Your task to perform on an android device: toggle translation in the chrome app Image 0: 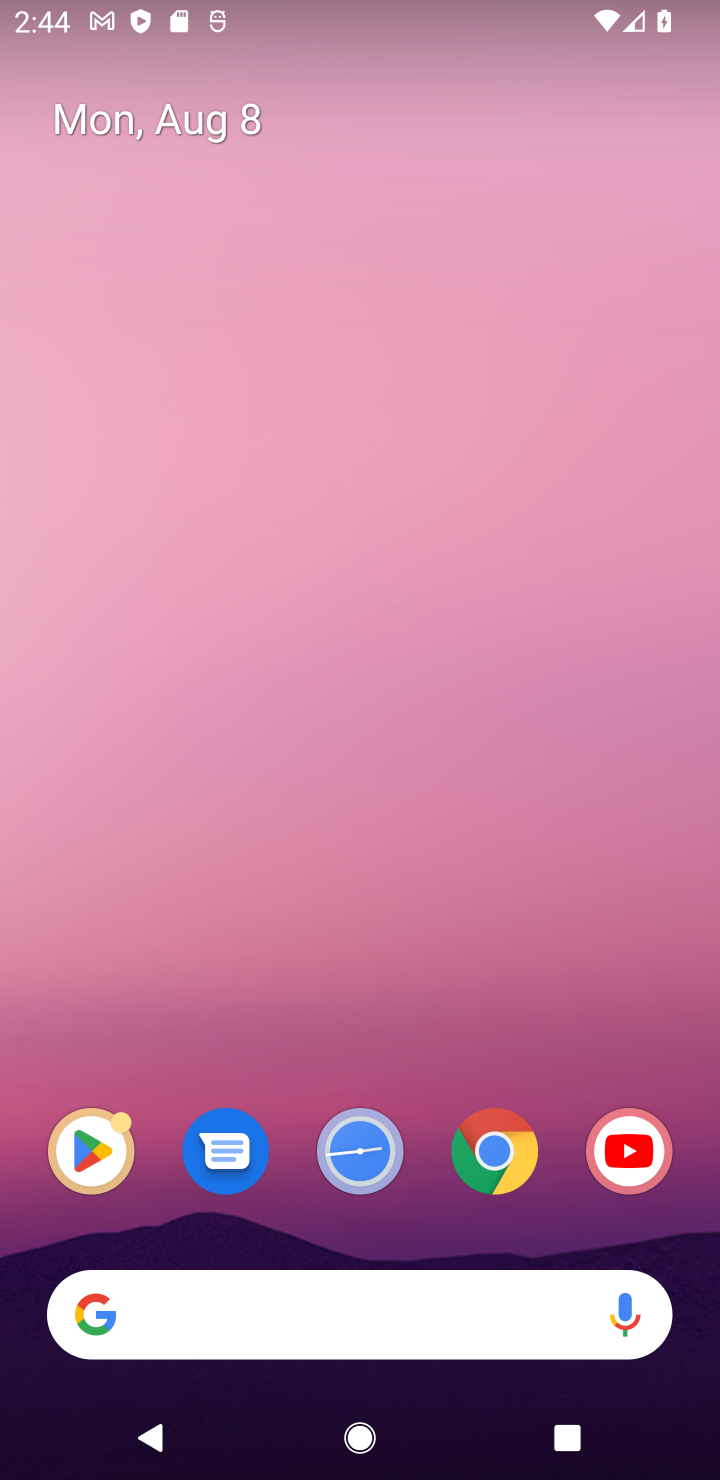
Step 0: click (496, 1128)
Your task to perform on an android device: toggle translation in the chrome app Image 1: 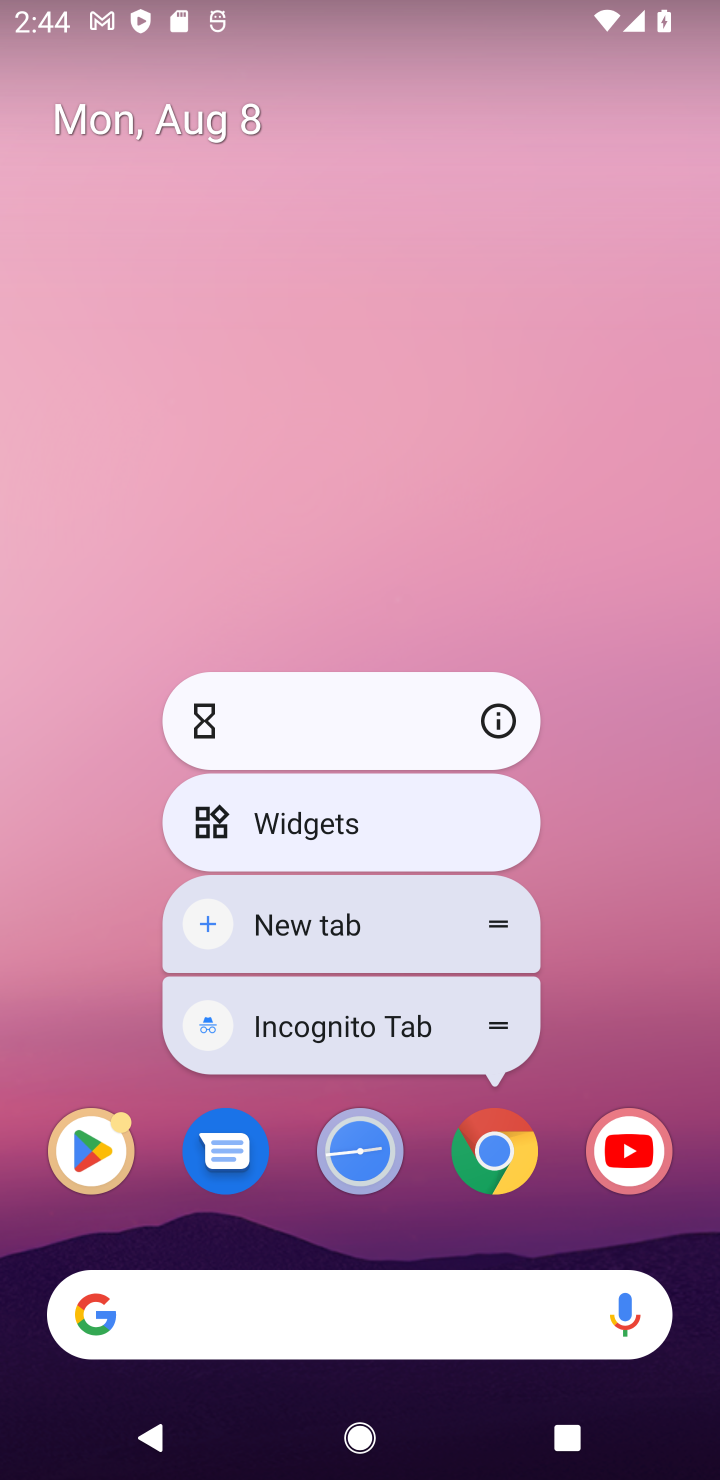
Step 1: click (510, 1169)
Your task to perform on an android device: toggle translation in the chrome app Image 2: 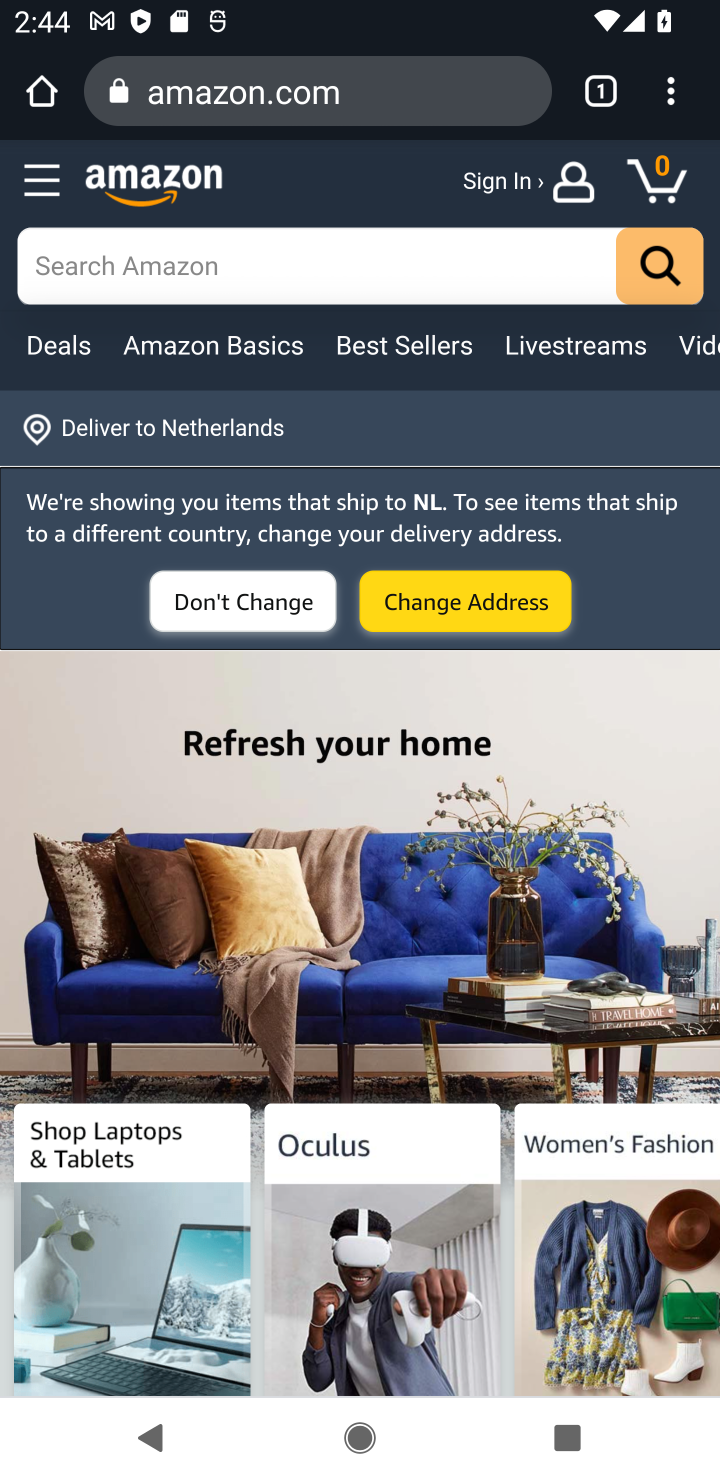
Step 2: click (678, 104)
Your task to perform on an android device: toggle translation in the chrome app Image 3: 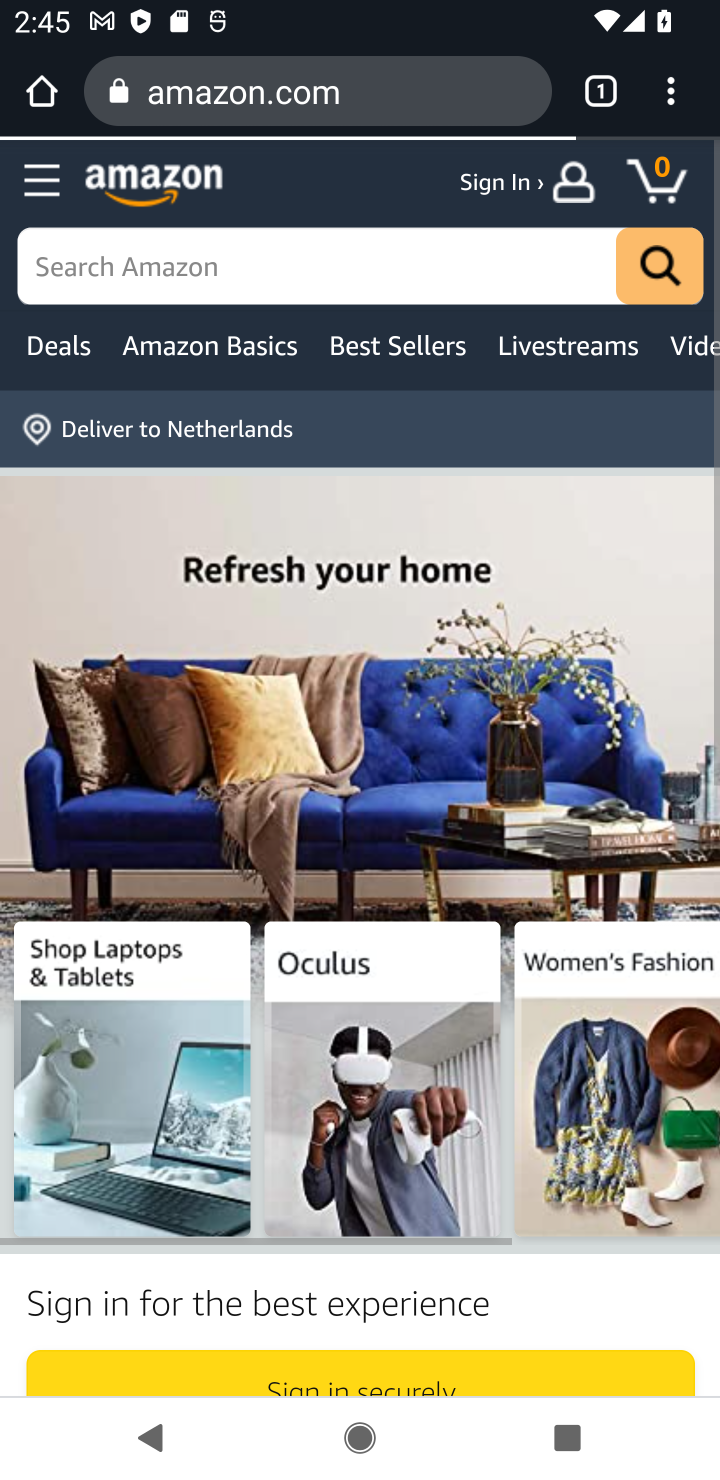
Step 3: drag from (678, 104) to (399, 1081)
Your task to perform on an android device: toggle translation in the chrome app Image 4: 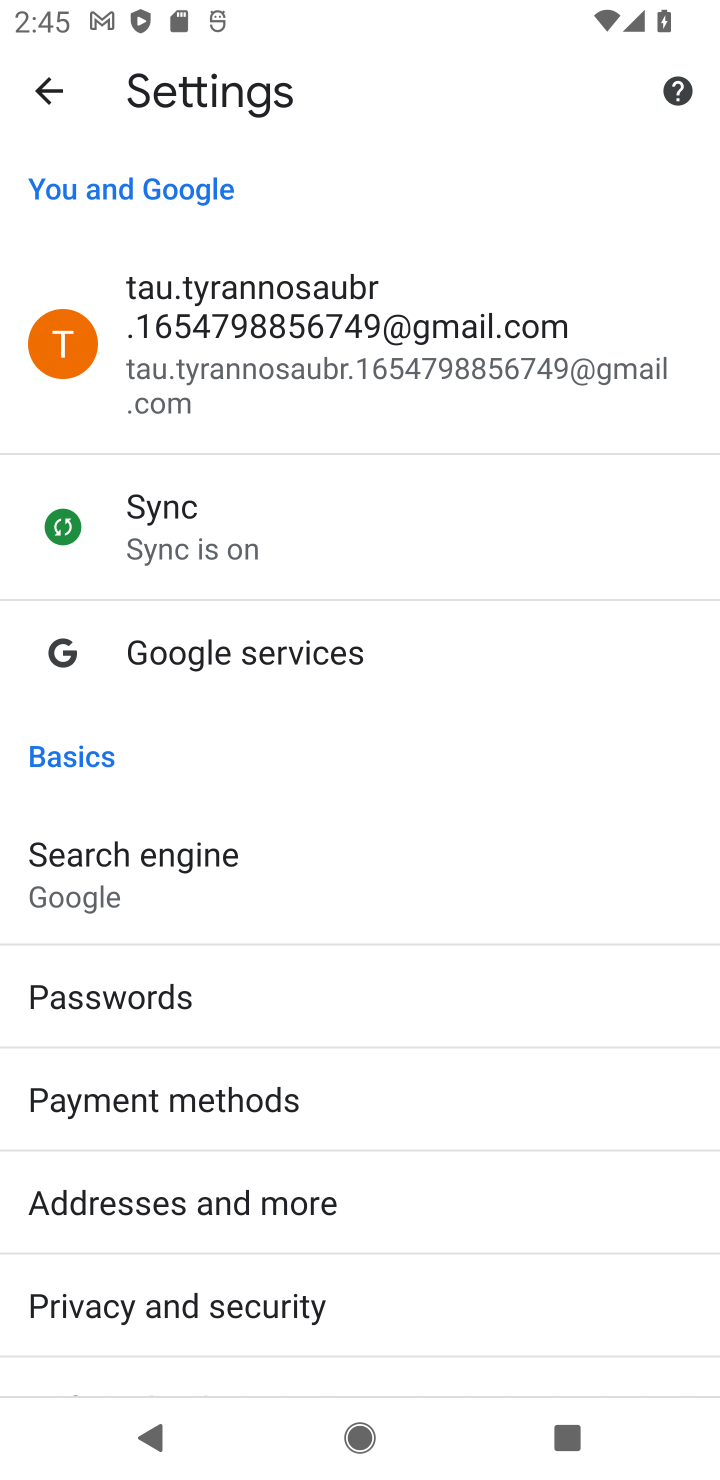
Step 4: drag from (359, 1193) to (431, 444)
Your task to perform on an android device: toggle translation in the chrome app Image 5: 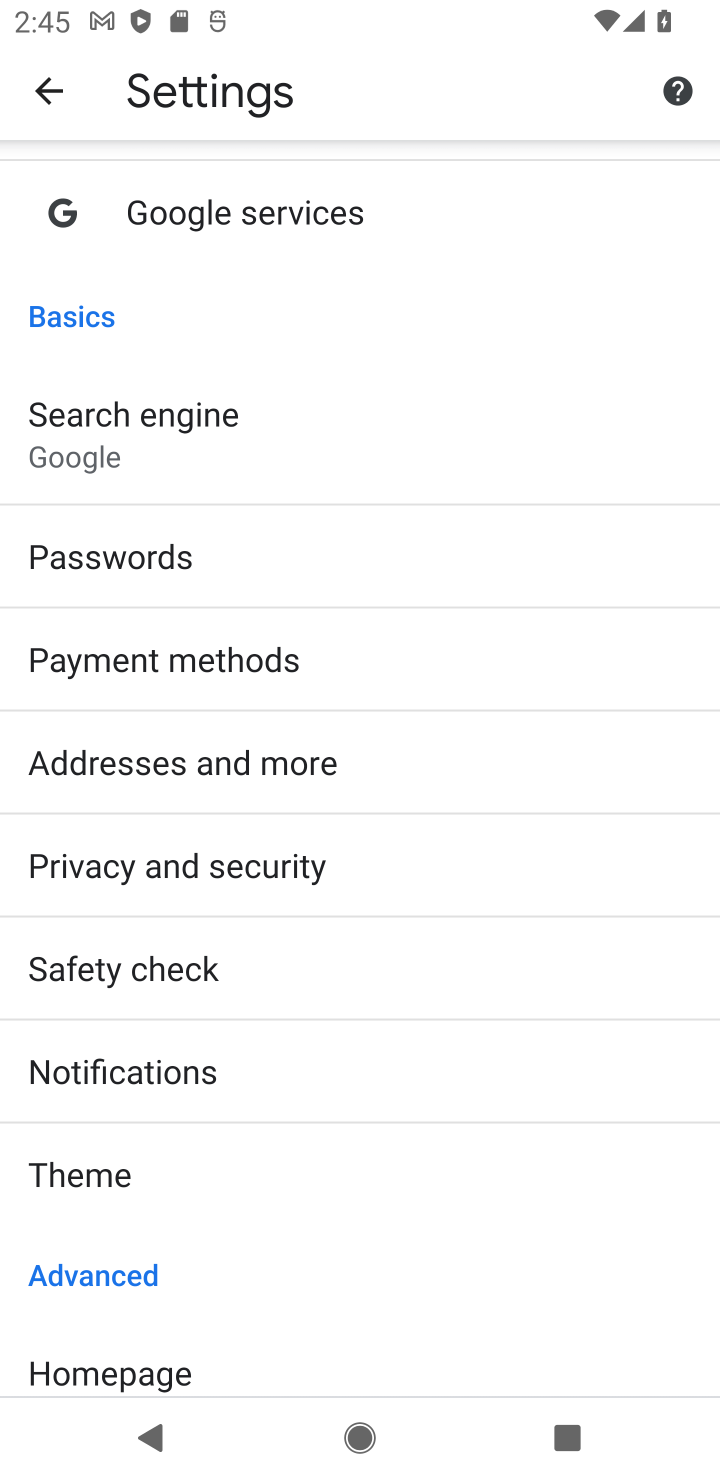
Step 5: drag from (268, 1198) to (278, 518)
Your task to perform on an android device: toggle translation in the chrome app Image 6: 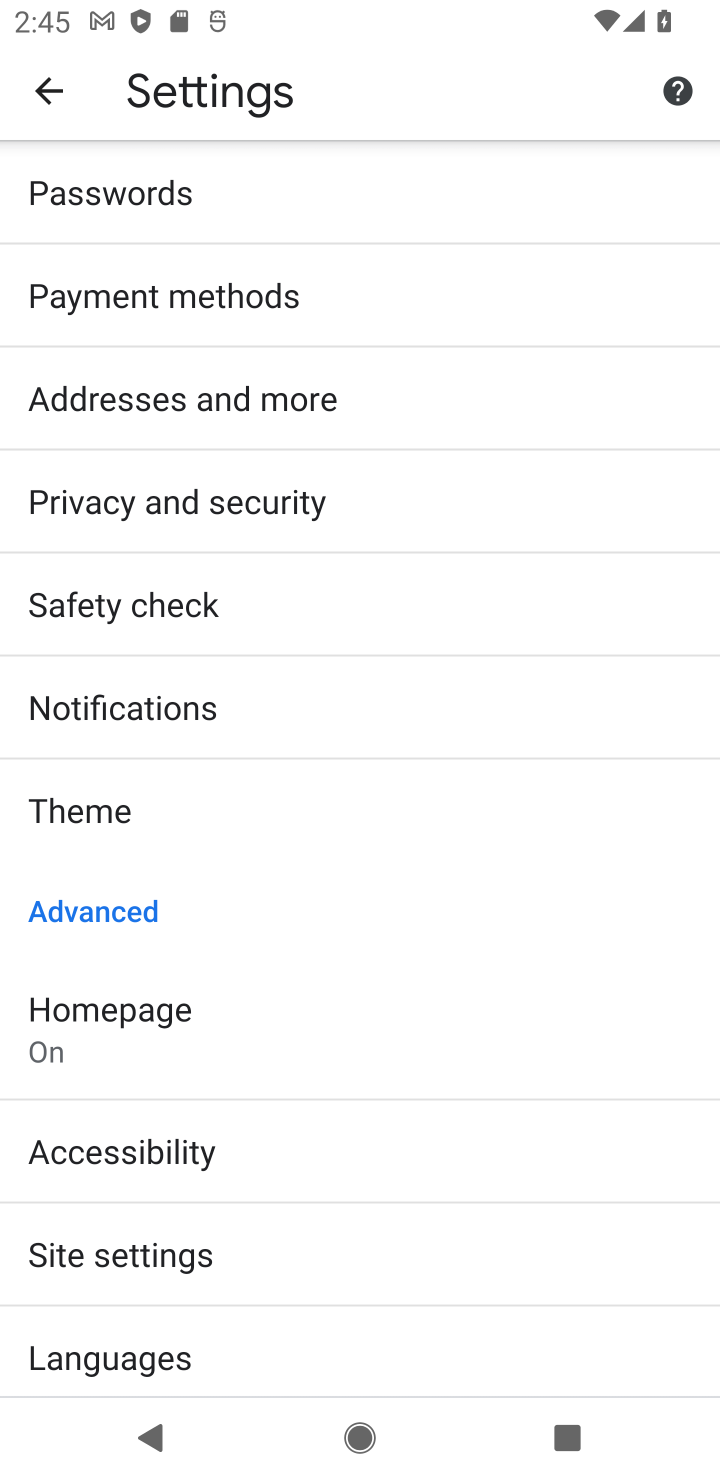
Step 6: drag from (262, 1228) to (328, 757)
Your task to perform on an android device: toggle translation in the chrome app Image 7: 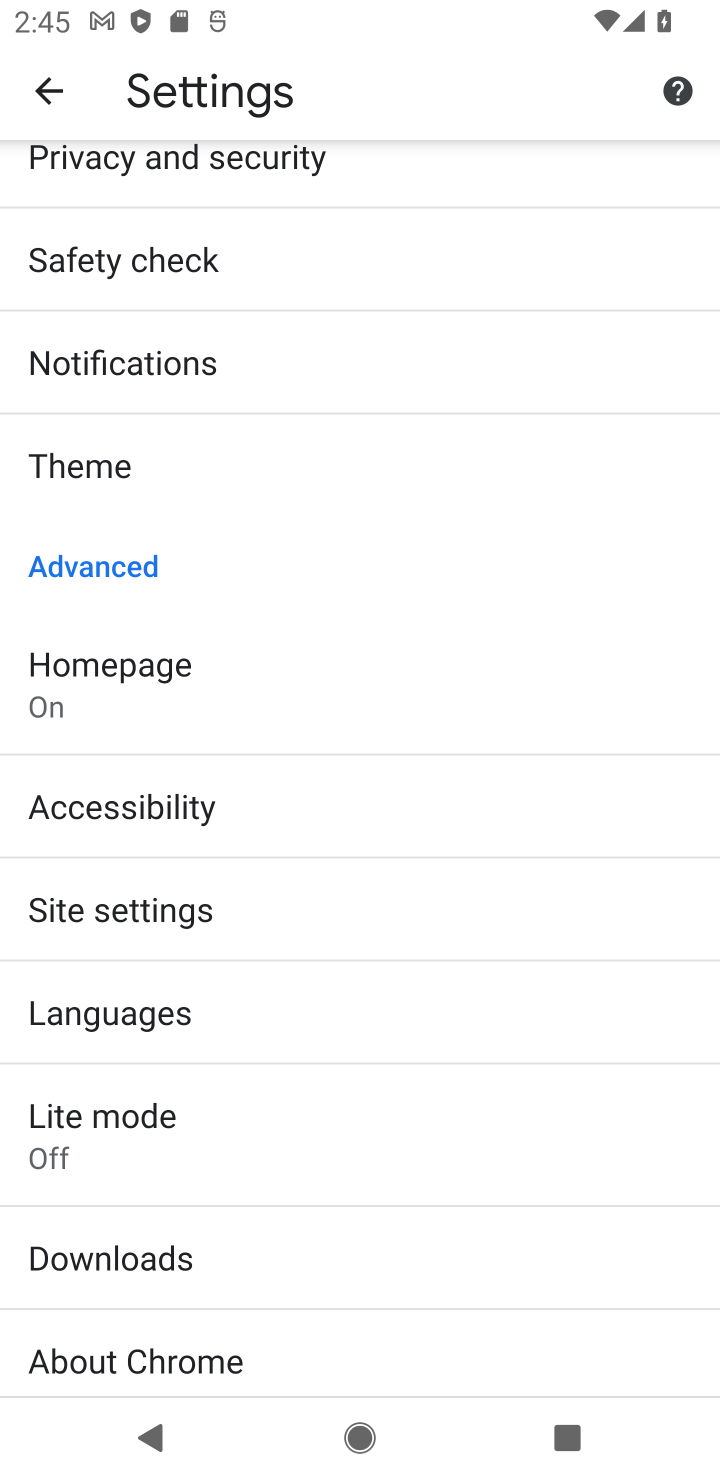
Step 7: click (240, 1005)
Your task to perform on an android device: toggle translation in the chrome app Image 8: 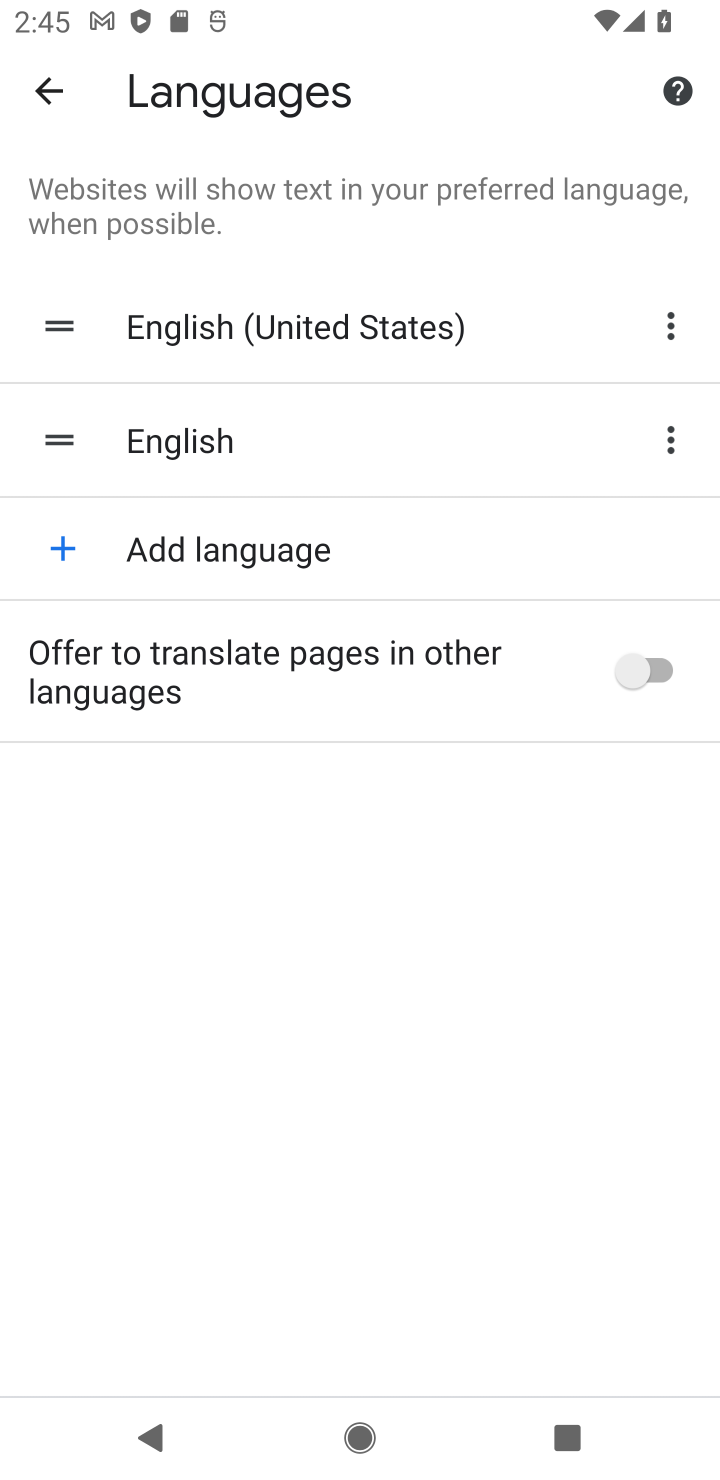
Step 8: click (634, 652)
Your task to perform on an android device: toggle translation in the chrome app Image 9: 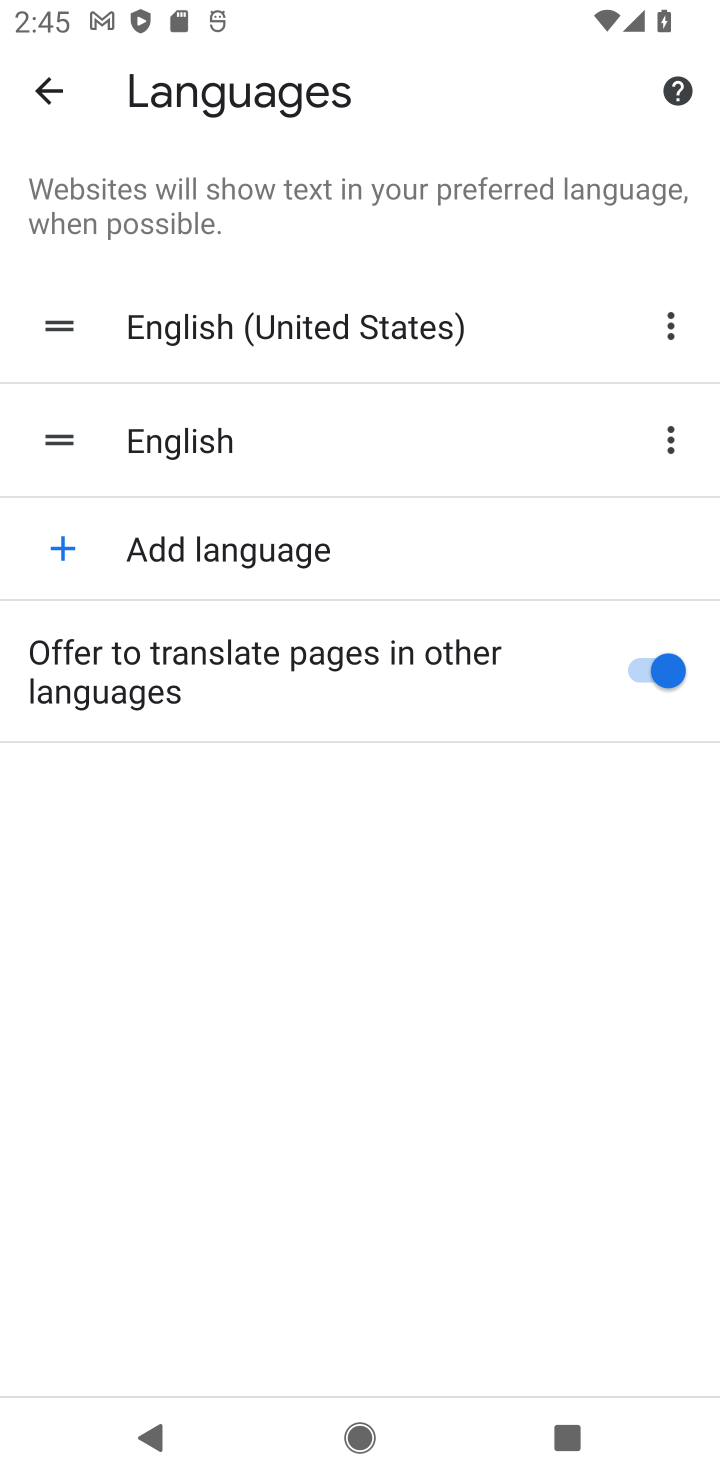
Step 9: task complete